Your task to perform on an android device: Open maps Image 0: 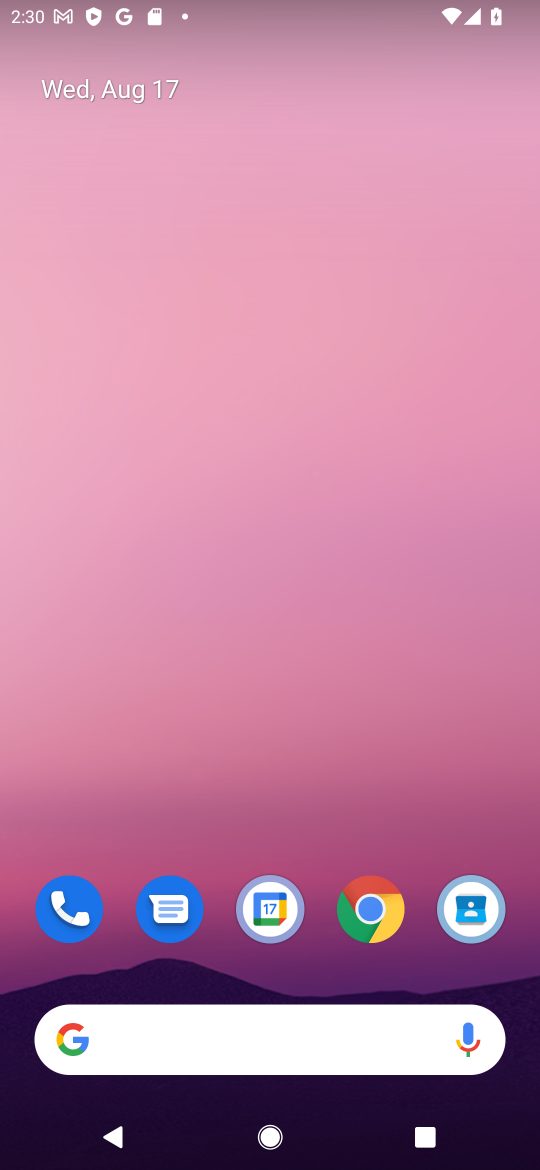
Step 0: drag from (243, 640) to (235, 174)
Your task to perform on an android device: Open maps Image 1: 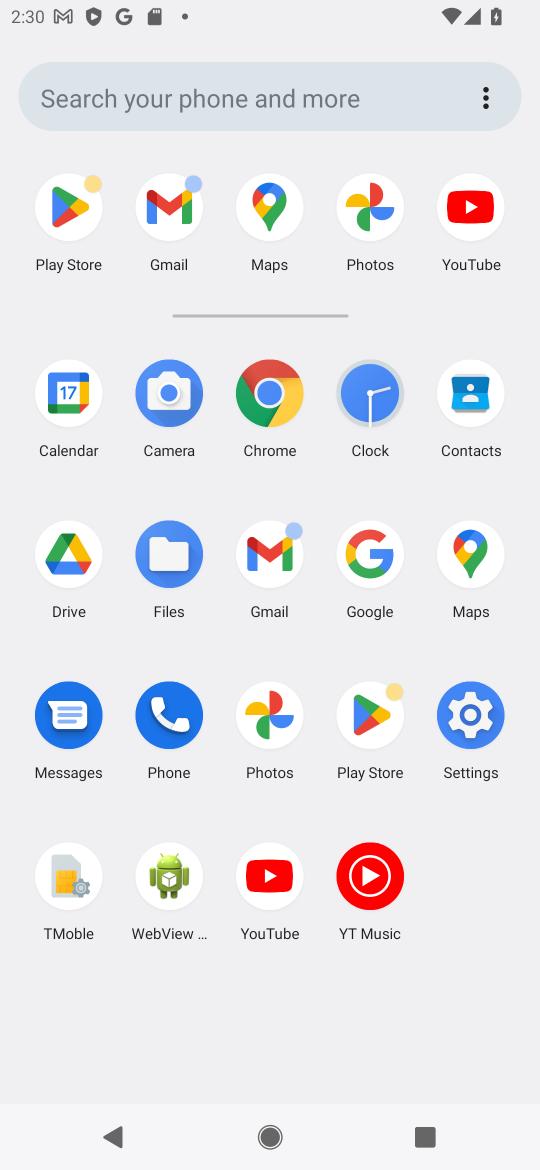
Step 1: click (468, 551)
Your task to perform on an android device: Open maps Image 2: 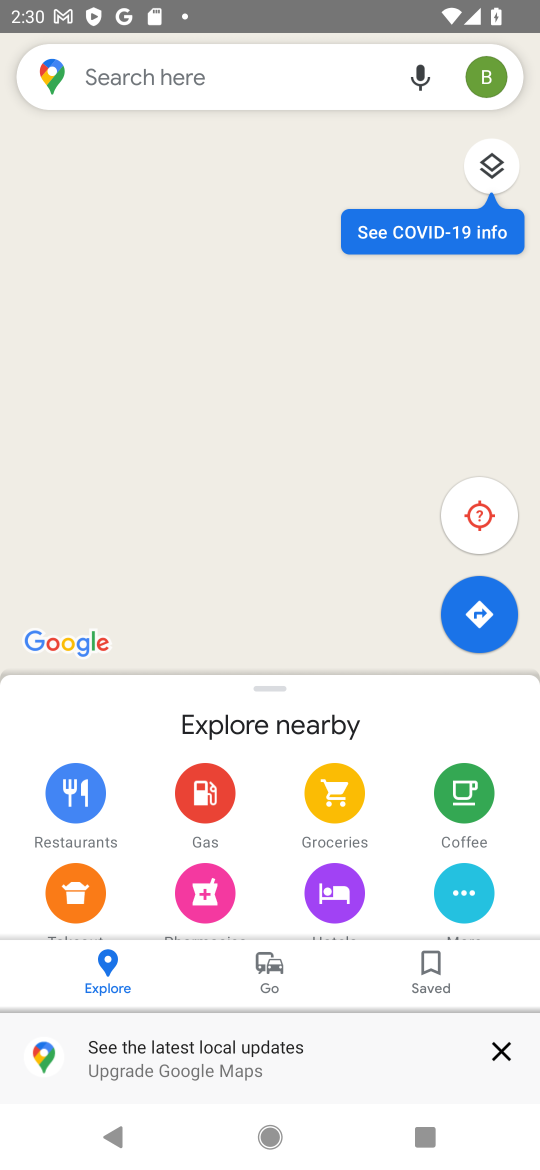
Step 2: task complete